Your task to perform on an android device: open sync settings in chrome Image 0: 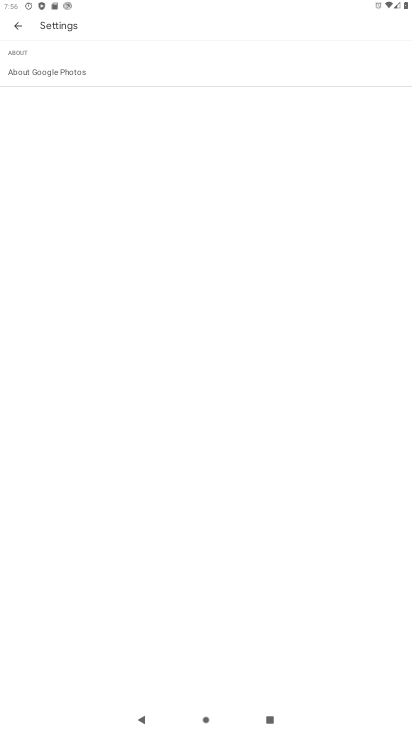
Step 0: drag from (326, 590) to (305, 533)
Your task to perform on an android device: open sync settings in chrome Image 1: 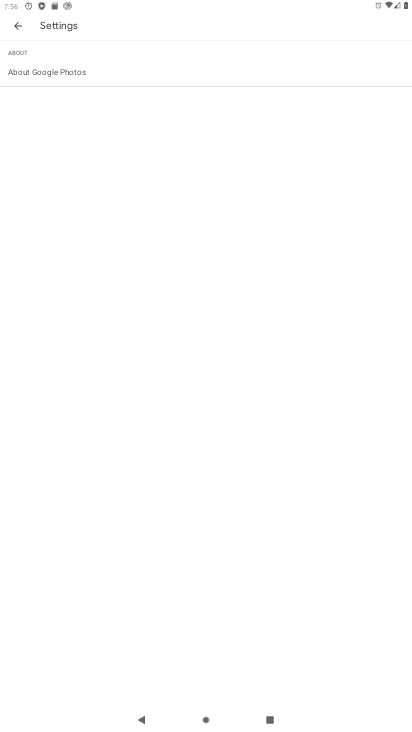
Step 1: press home button
Your task to perform on an android device: open sync settings in chrome Image 2: 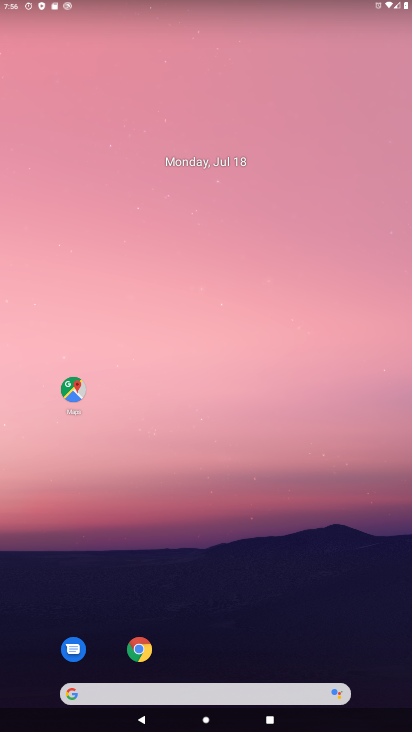
Step 2: drag from (292, 605) to (243, 79)
Your task to perform on an android device: open sync settings in chrome Image 3: 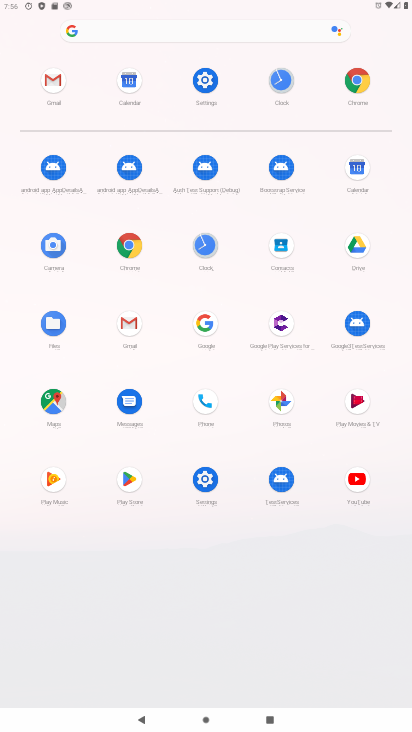
Step 3: click (127, 245)
Your task to perform on an android device: open sync settings in chrome Image 4: 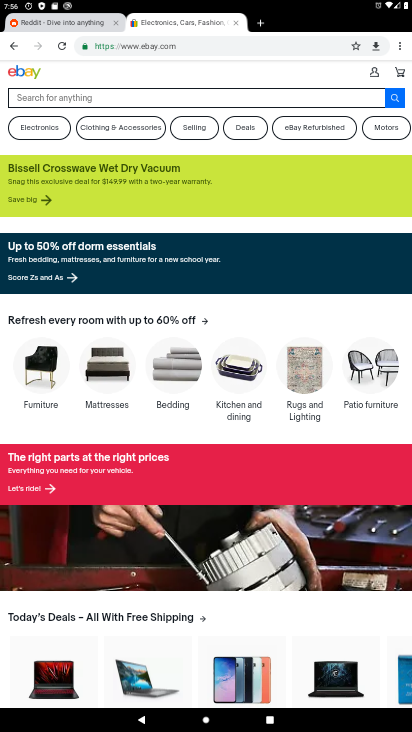
Step 4: drag from (401, 50) to (307, 342)
Your task to perform on an android device: open sync settings in chrome Image 5: 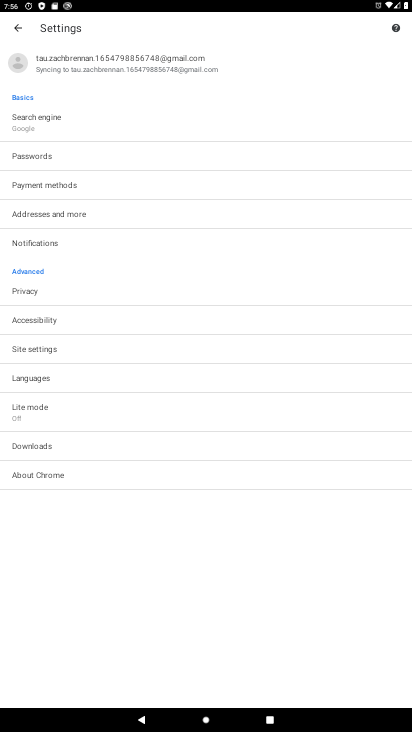
Step 5: click (97, 70)
Your task to perform on an android device: open sync settings in chrome Image 6: 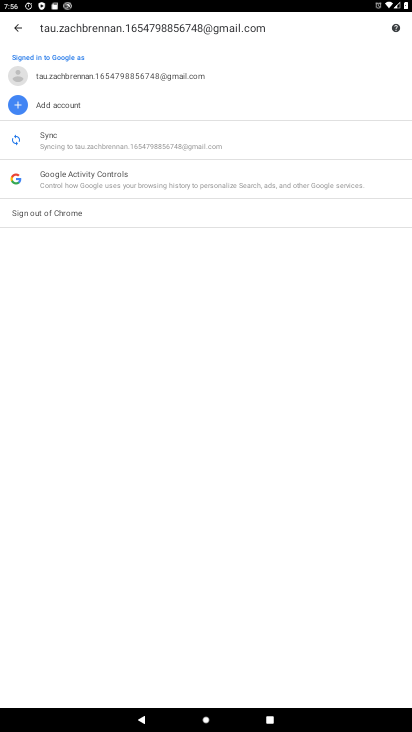
Step 6: click (47, 141)
Your task to perform on an android device: open sync settings in chrome Image 7: 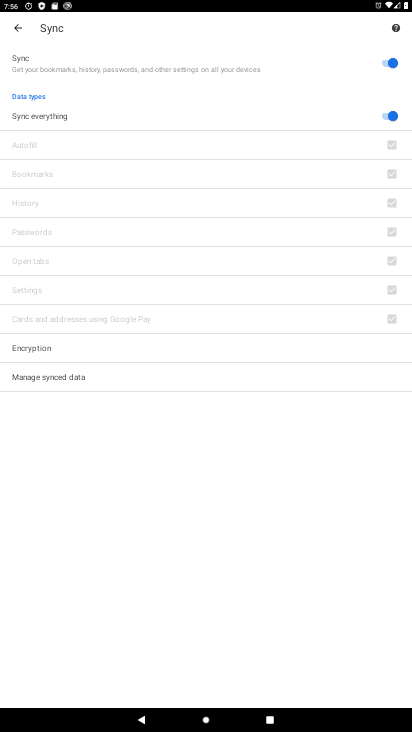
Step 7: task complete